Your task to perform on an android device: delete a single message in the gmail app Image 0: 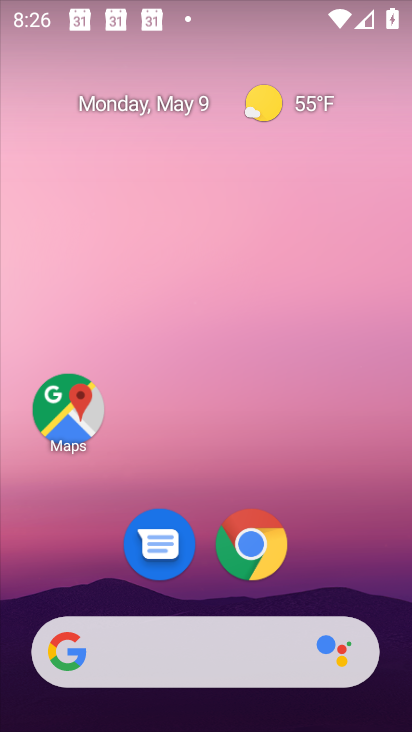
Step 0: drag from (208, 566) to (249, 183)
Your task to perform on an android device: delete a single message in the gmail app Image 1: 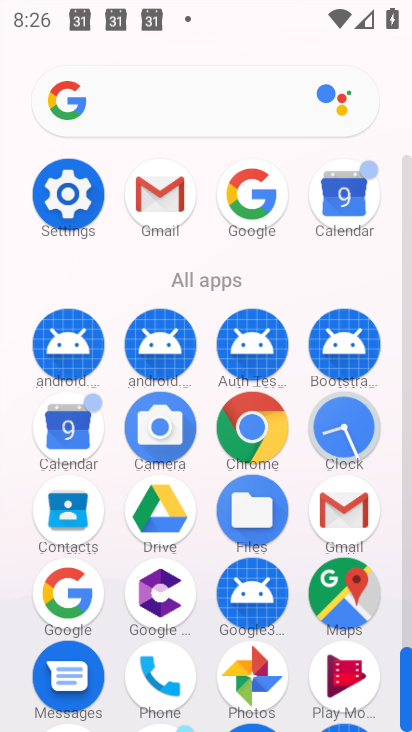
Step 1: click (151, 191)
Your task to perform on an android device: delete a single message in the gmail app Image 2: 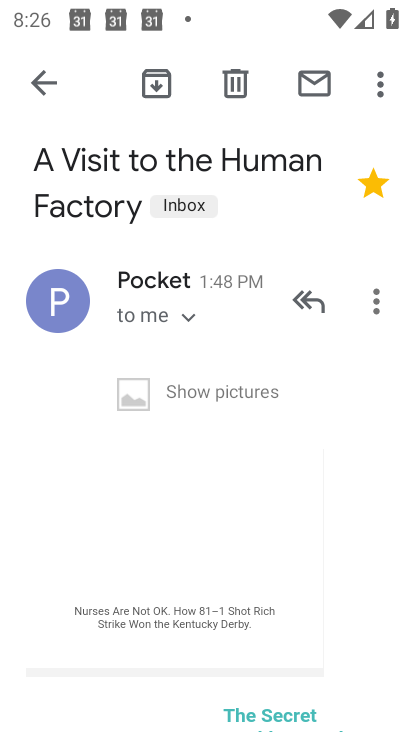
Step 2: click (236, 81)
Your task to perform on an android device: delete a single message in the gmail app Image 3: 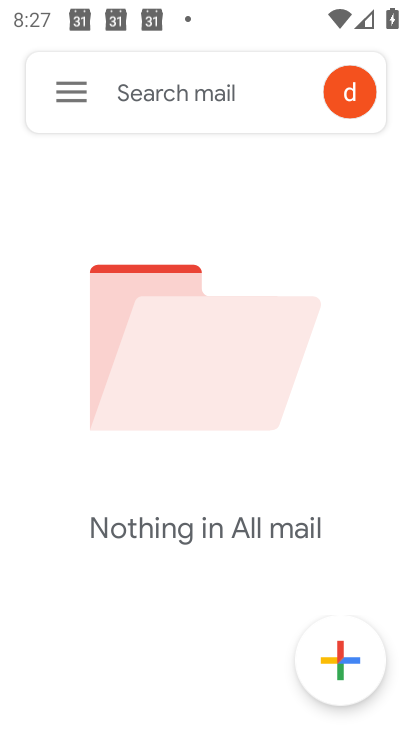
Step 3: task complete